Your task to perform on an android device: Set the phone to "Do not disturb". Image 0: 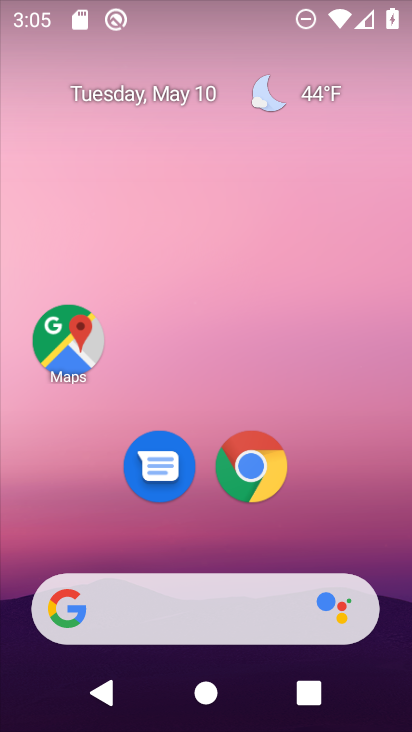
Step 0: drag from (312, 534) to (332, 21)
Your task to perform on an android device: Set the phone to "Do not disturb". Image 1: 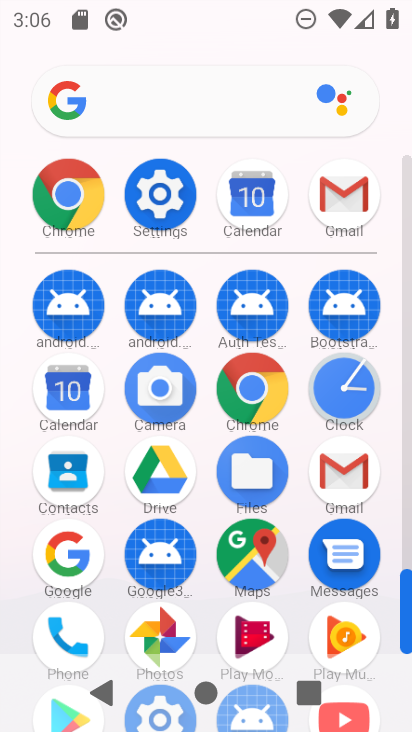
Step 1: click (161, 195)
Your task to perform on an android device: Set the phone to "Do not disturb". Image 2: 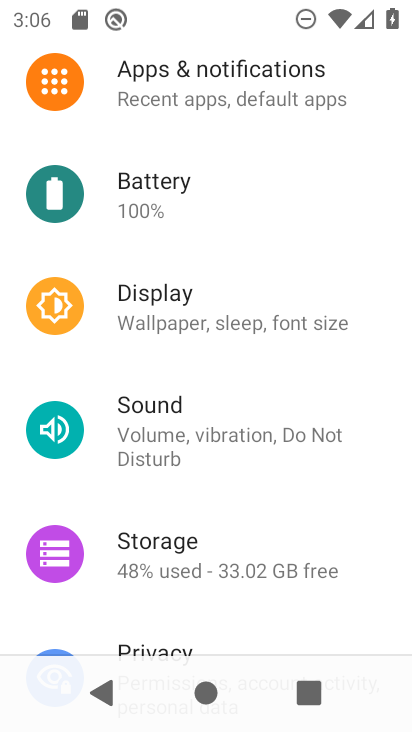
Step 2: click (162, 452)
Your task to perform on an android device: Set the phone to "Do not disturb". Image 3: 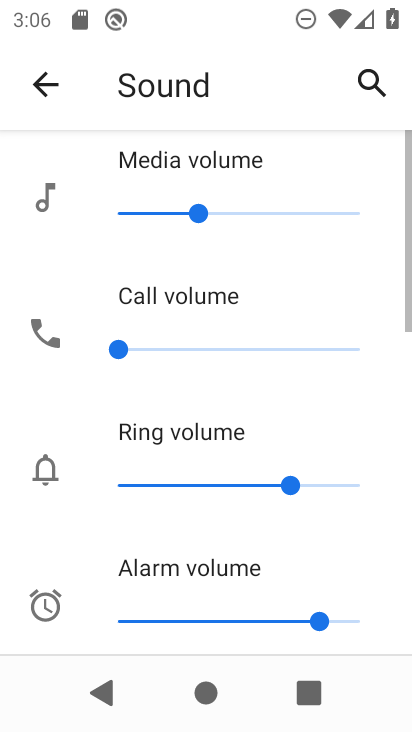
Step 3: drag from (218, 547) to (288, 115)
Your task to perform on an android device: Set the phone to "Do not disturb". Image 4: 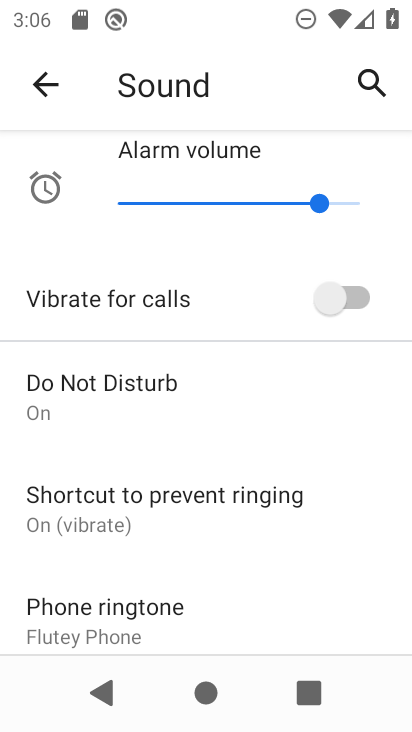
Step 4: drag from (281, 518) to (315, 219)
Your task to perform on an android device: Set the phone to "Do not disturb". Image 5: 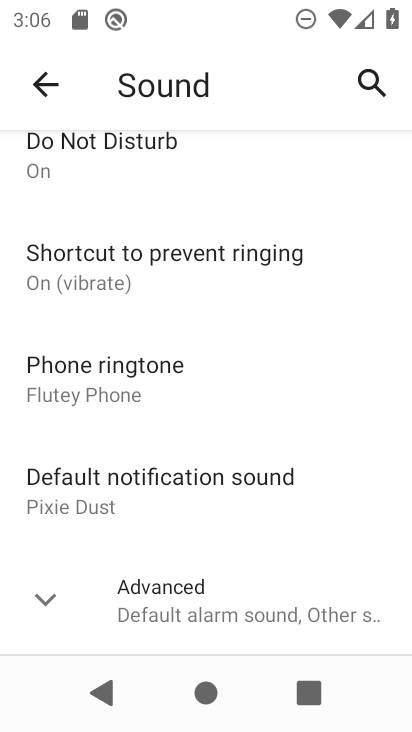
Step 5: click (116, 139)
Your task to perform on an android device: Set the phone to "Do not disturb". Image 6: 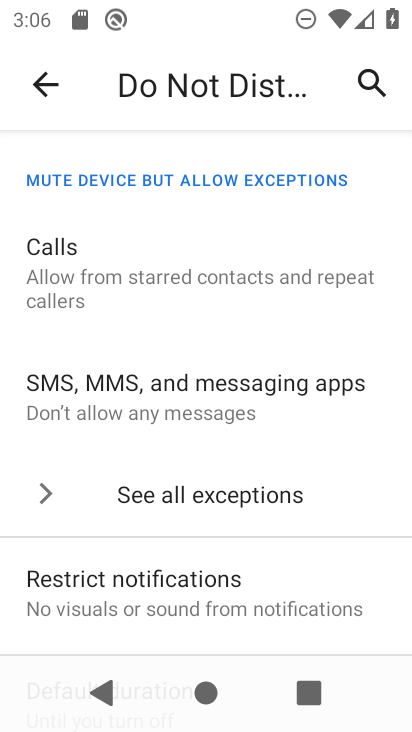
Step 6: task complete